Your task to perform on an android device: Go to Reddit.com Image 0: 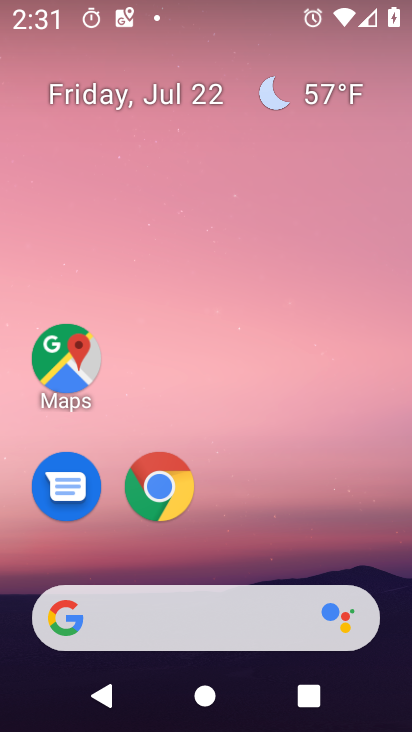
Step 0: drag from (359, 512) to (359, 106)
Your task to perform on an android device: Go to Reddit.com Image 1: 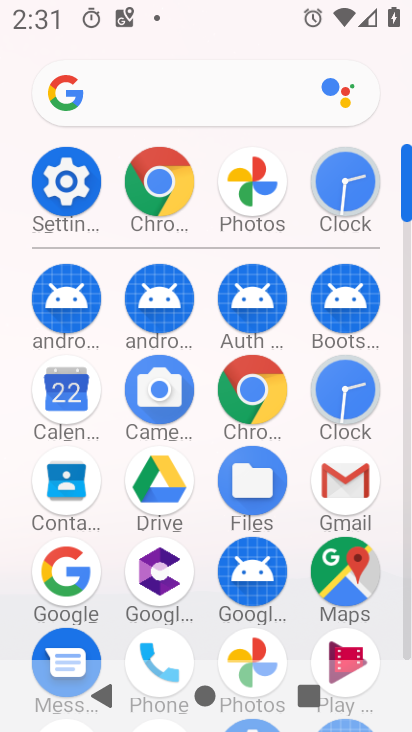
Step 1: click (257, 391)
Your task to perform on an android device: Go to Reddit.com Image 2: 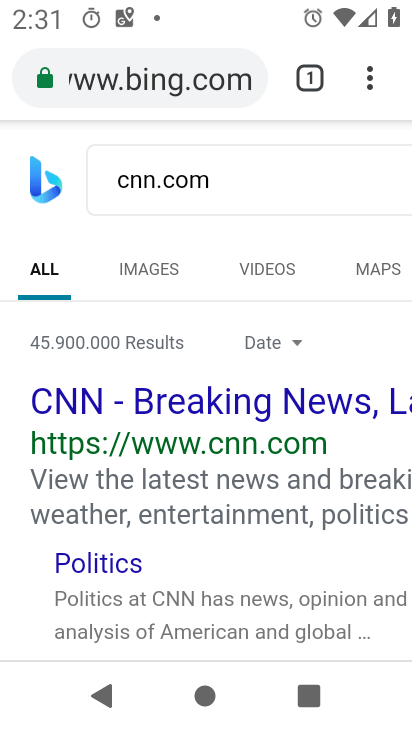
Step 2: click (199, 92)
Your task to perform on an android device: Go to Reddit.com Image 3: 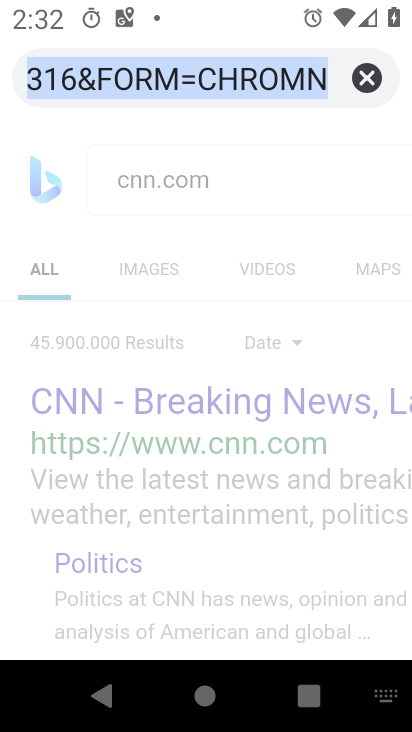
Step 3: type "reddit.com"
Your task to perform on an android device: Go to Reddit.com Image 4: 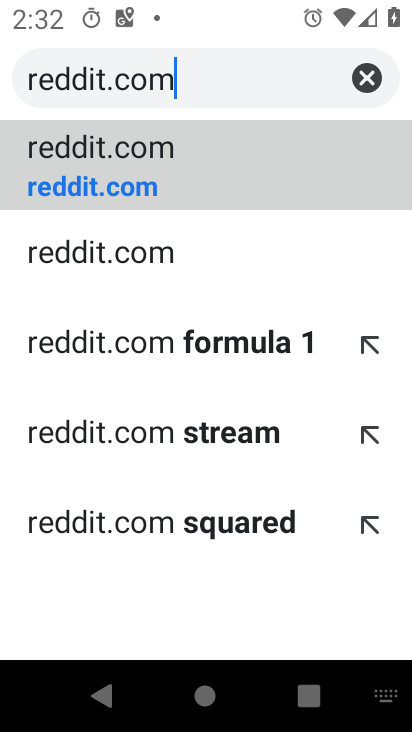
Step 4: click (298, 158)
Your task to perform on an android device: Go to Reddit.com Image 5: 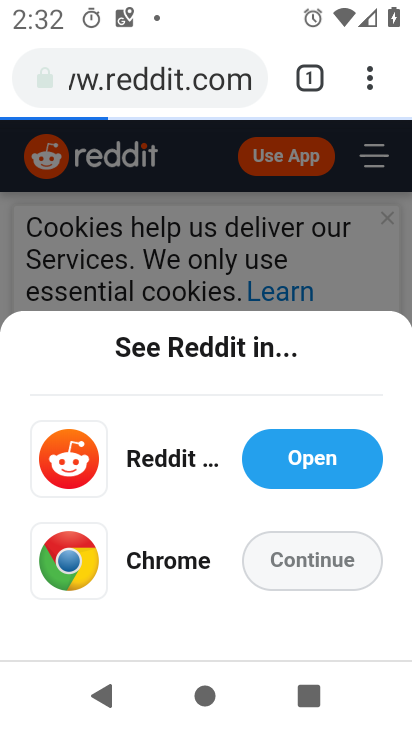
Step 5: task complete